Your task to perform on an android device: check battery use Image 0: 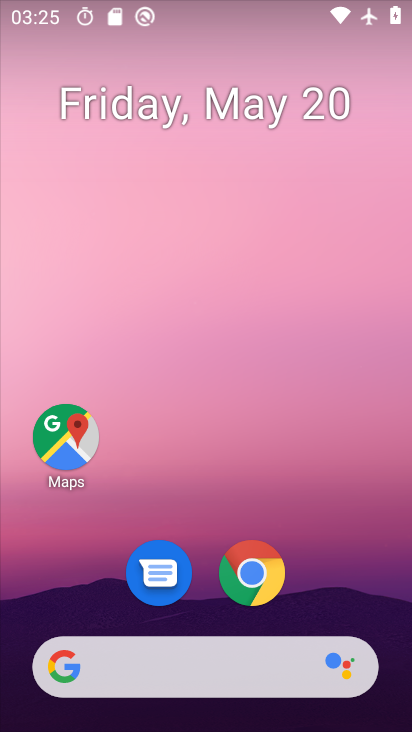
Step 0: drag from (200, 610) to (212, 98)
Your task to perform on an android device: check battery use Image 1: 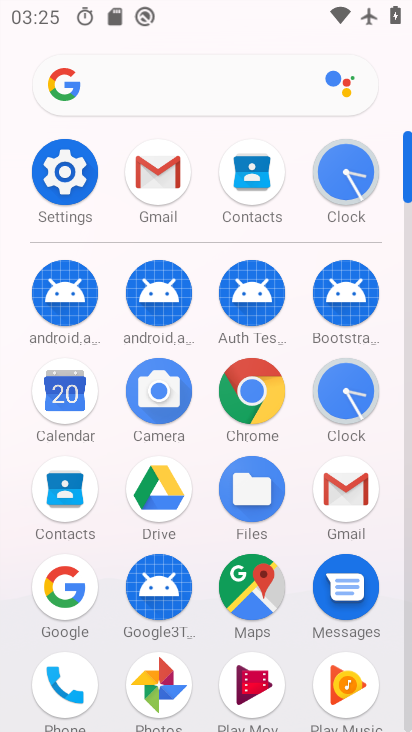
Step 1: click (90, 182)
Your task to perform on an android device: check battery use Image 2: 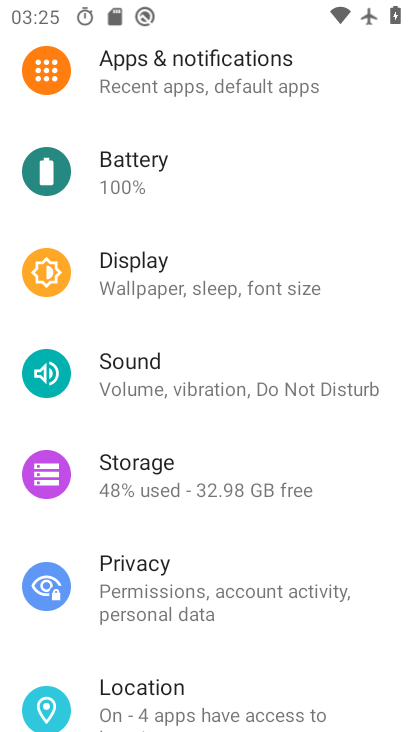
Step 2: click (156, 197)
Your task to perform on an android device: check battery use Image 3: 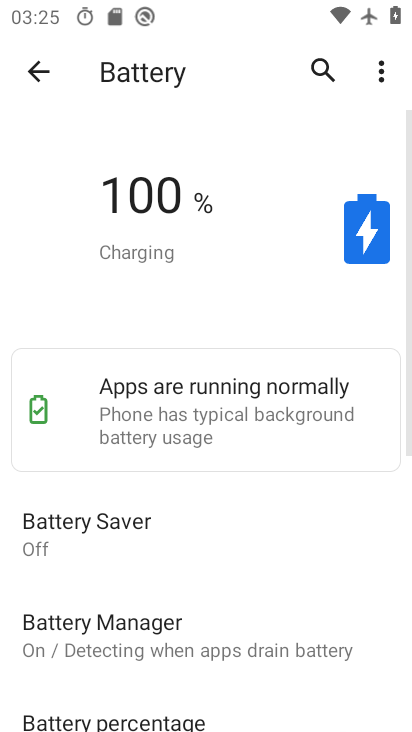
Step 3: click (380, 82)
Your task to perform on an android device: check battery use Image 4: 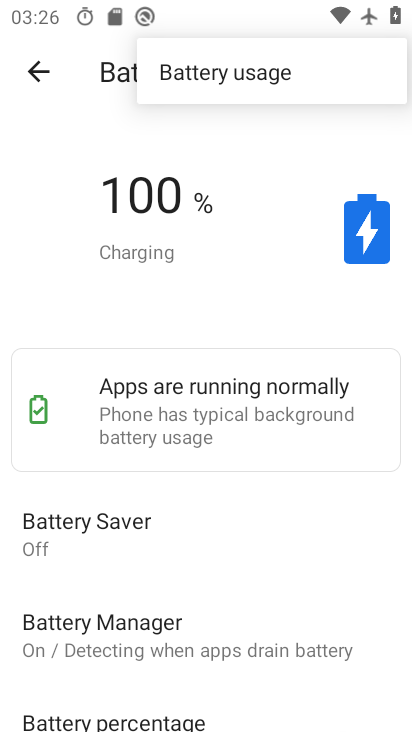
Step 4: click (286, 94)
Your task to perform on an android device: check battery use Image 5: 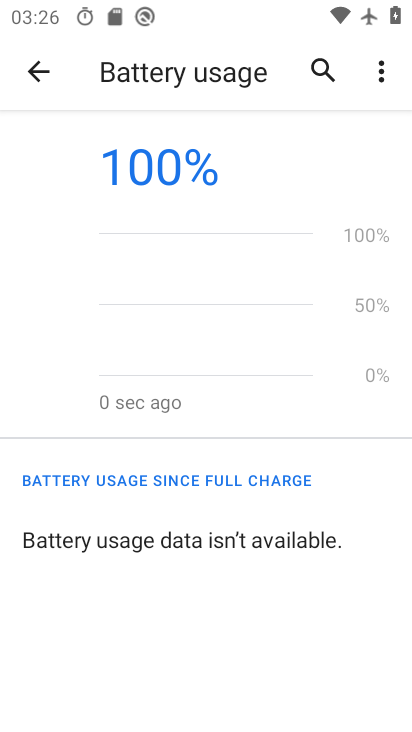
Step 5: task complete